Your task to perform on an android device: delete browsing data in the chrome app Image 0: 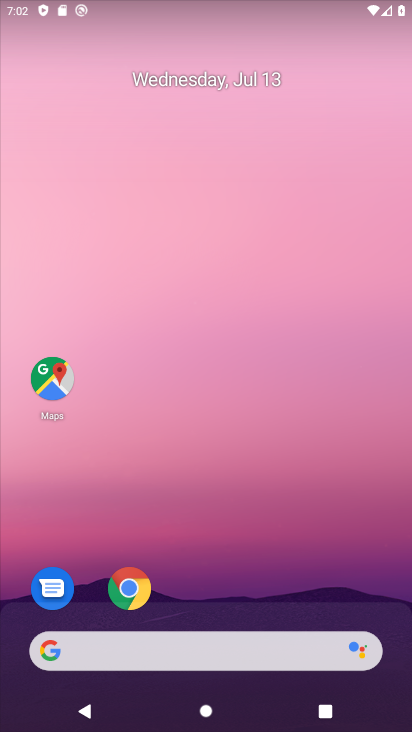
Step 0: click (128, 587)
Your task to perform on an android device: delete browsing data in the chrome app Image 1: 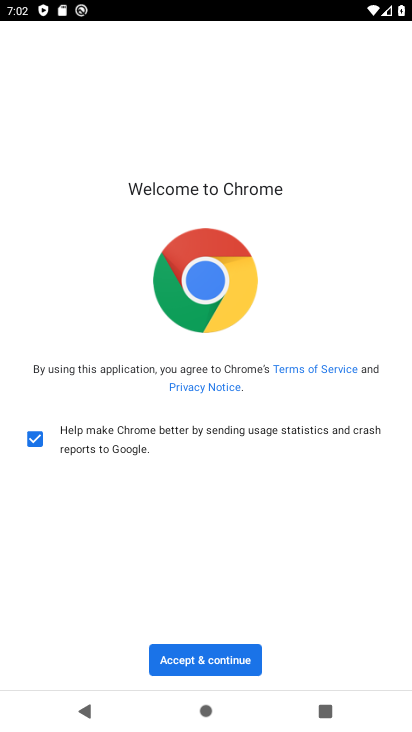
Step 1: click (234, 665)
Your task to perform on an android device: delete browsing data in the chrome app Image 2: 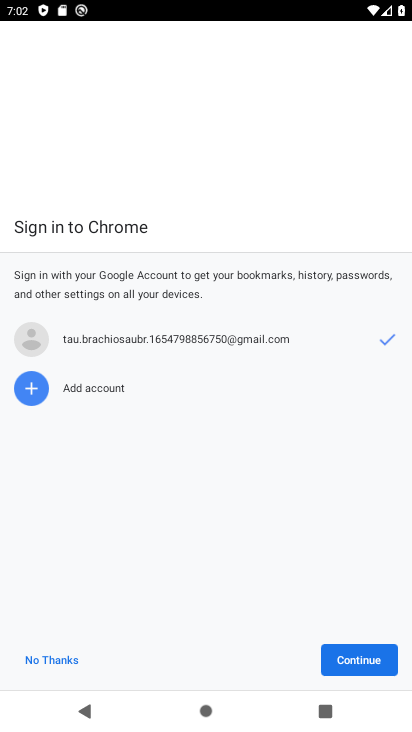
Step 2: click (365, 661)
Your task to perform on an android device: delete browsing data in the chrome app Image 3: 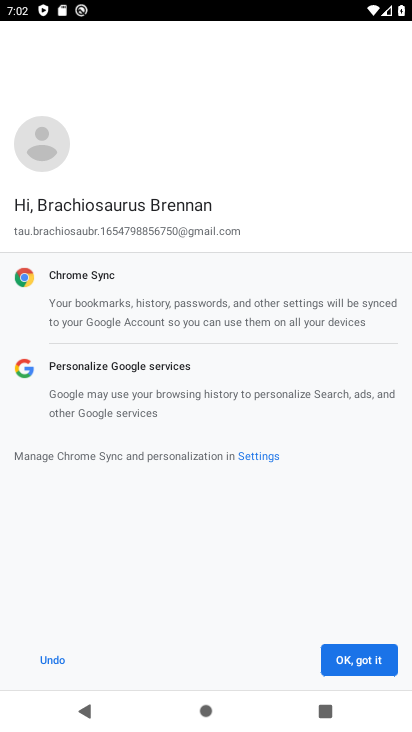
Step 3: click (332, 667)
Your task to perform on an android device: delete browsing data in the chrome app Image 4: 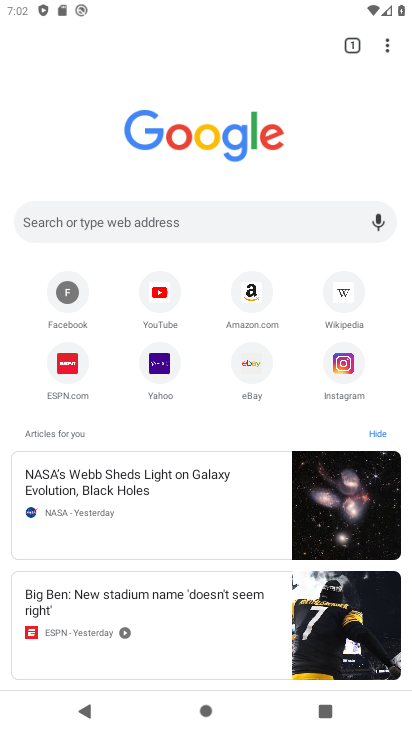
Step 4: click (384, 44)
Your task to perform on an android device: delete browsing data in the chrome app Image 5: 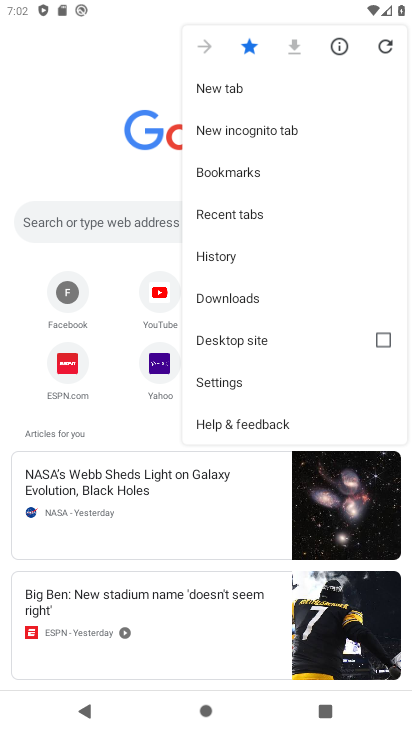
Step 5: click (228, 254)
Your task to perform on an android device: delete browsing data in the chrome app Image 6: 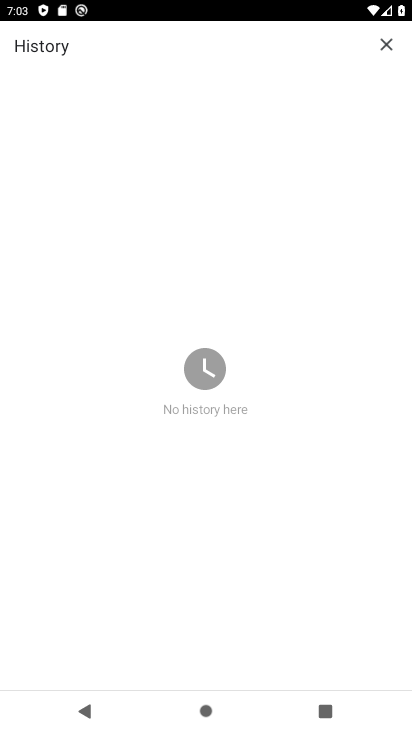
Step 6: task complete